Your task to perform on an android device: Go to Yahoo.com Image 0: 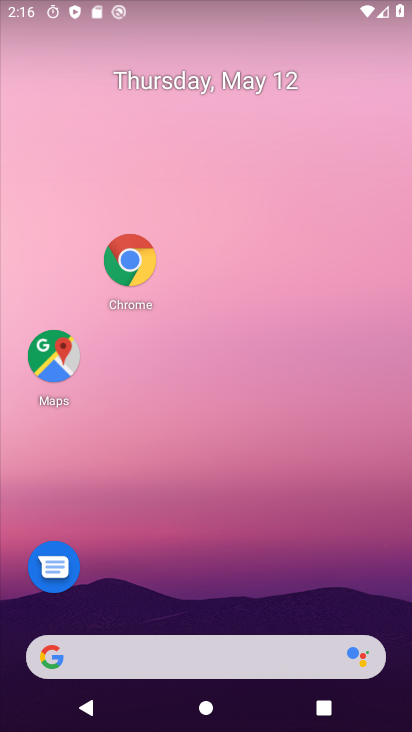
Step 0: drag from (201, 639) to (257, 312)
Your task to perform on an android device: Go to Yahoo.com Image 1: 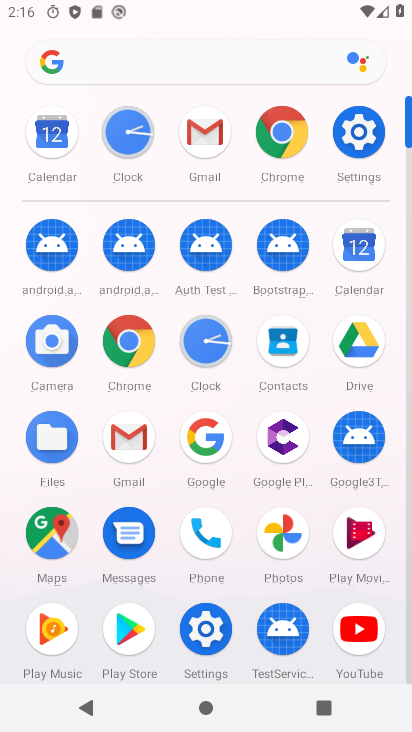
Step 1: click (289, 140)
Your task to perform on an android device: Go to Yahoo.com Image 2: 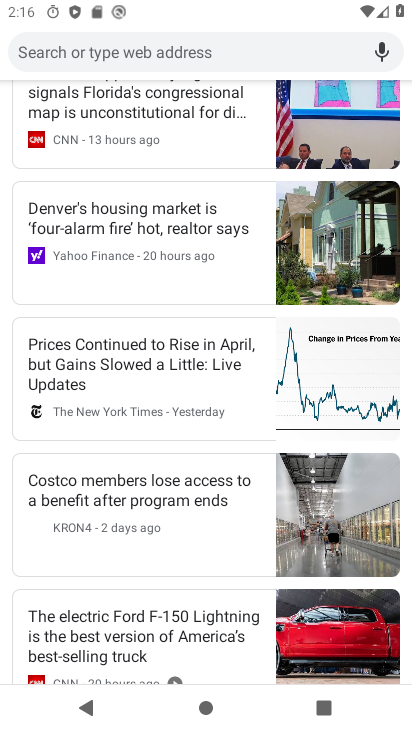
Step 2: drag from (211, 110) to (163, 529)
Your task to perform on an android device: Go to Yahoo.com Image 3: 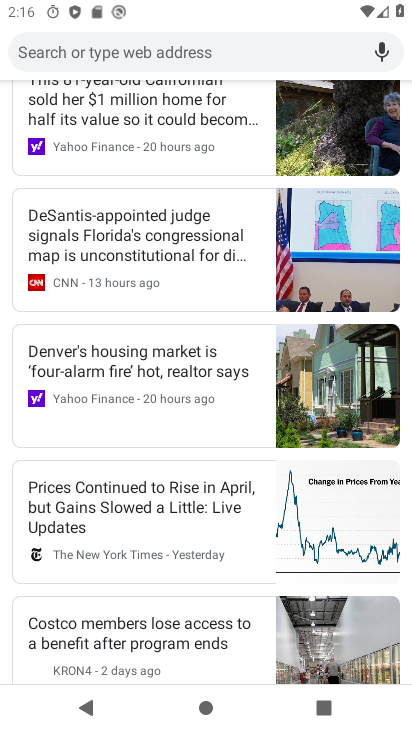
Step 3: drag from (155, 133) to (162, 592)
Your task to perform on an android device: Go to Yahoo.com Image 4: 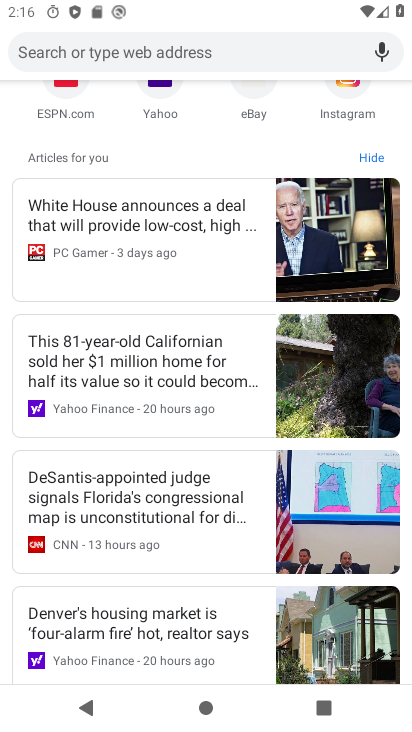
Step 4: drag from (162, 140) to (167, 594)
Your task to perform on an android device: Go to Yahoo.com Image 5: 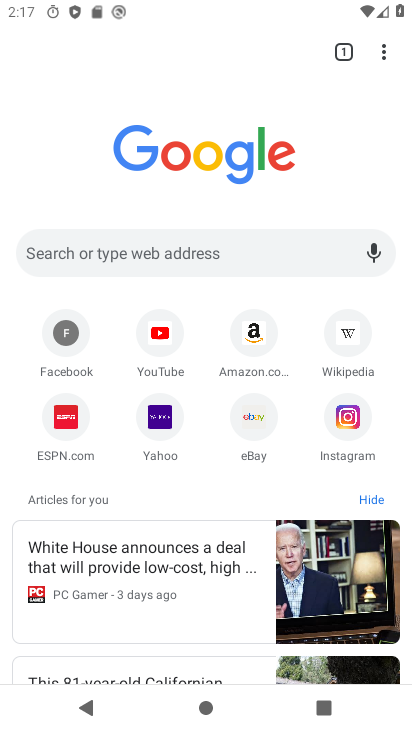
Step 5: click (158, 420)
Your task to perform on an android device: Go to Yahoo.com Image 6: 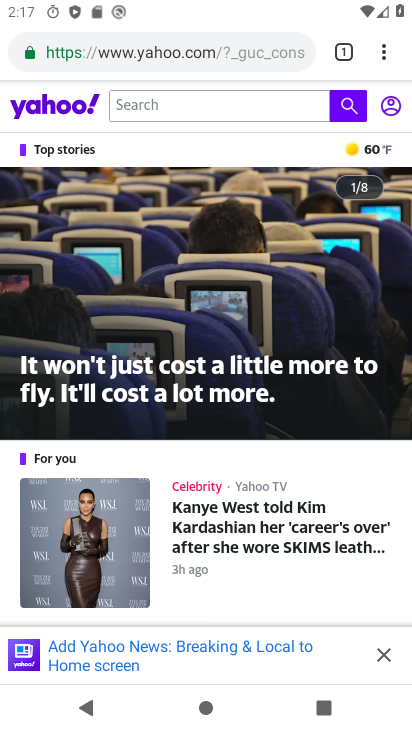
Step 6: task complete